Your task to perform on an android device: Show me the alarms in the clock app Image 0: 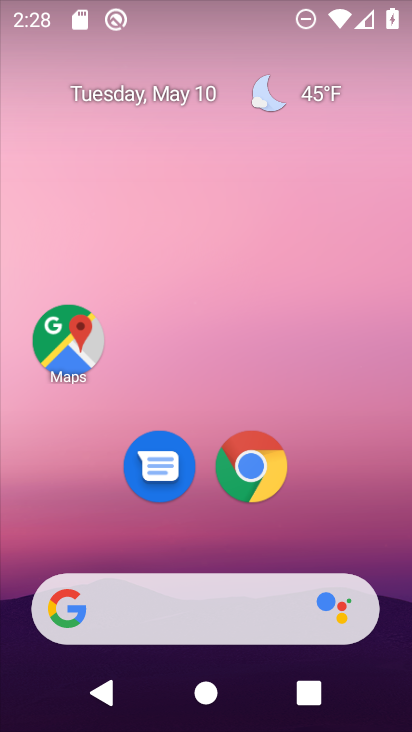
Step 0: drag from (299, 490) to (265, 25)
Your task to perform on an android device: Show me the alarms in the clock app Image 1: 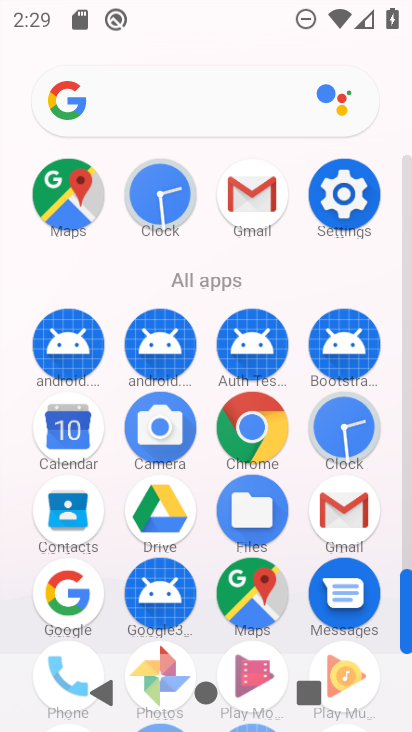
Step 1: click (141, 212)
Your task to perform on an android device: Show me the alarms in the clock app Image 2: 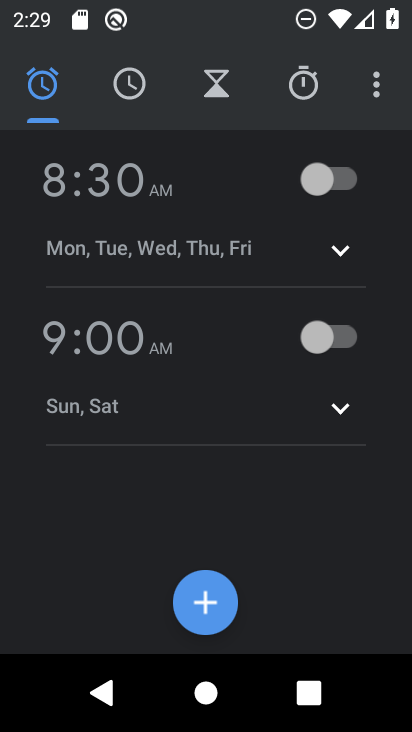
Step 2: task complete